Your task to perform on an android device: open device folders in google photos Image 0: 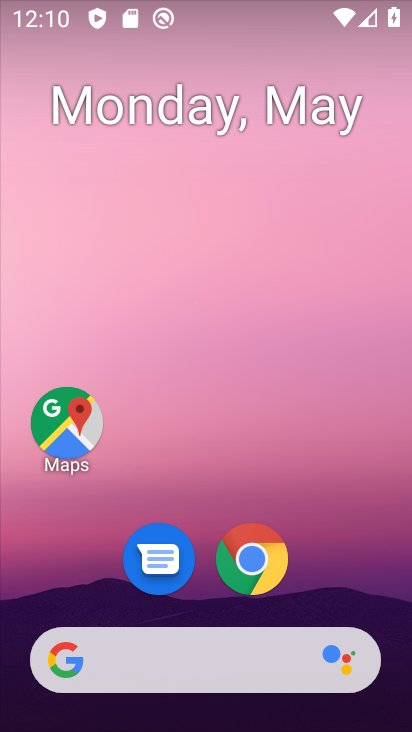
Step 0: drag from (349, 568) to (246, 0)
Your task to perform on an android device: open device folders in google photos Image 1: 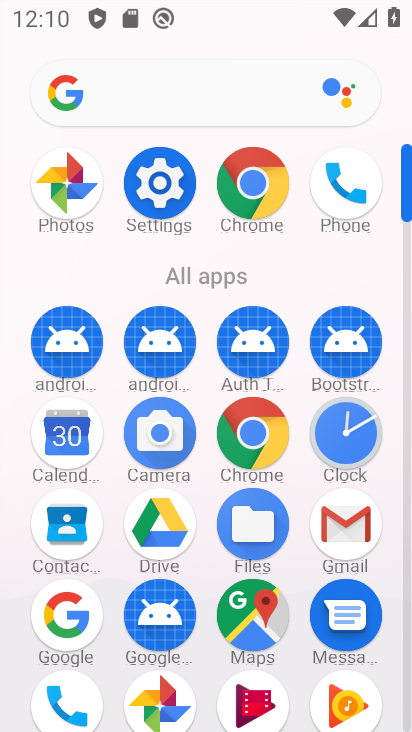
Step 1: drag from (1, 575) to (9, 222)
Your task to perform on an android device: open device folders in google photos Image 2: 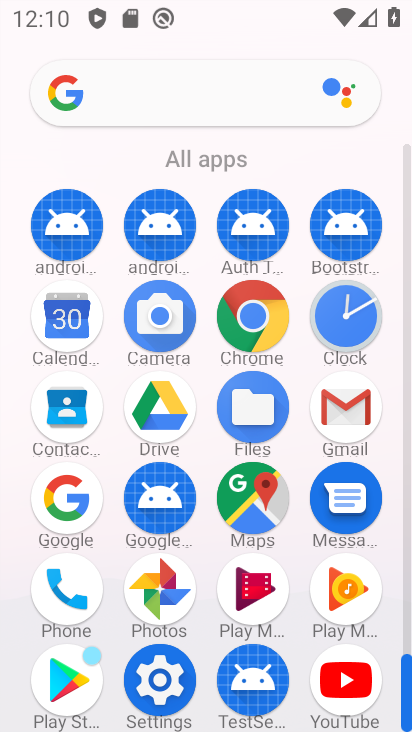
Step 2: drag from (15, 524) to (24, 206)
Your task to perform on an android device: open device folders in google photos Image 3: 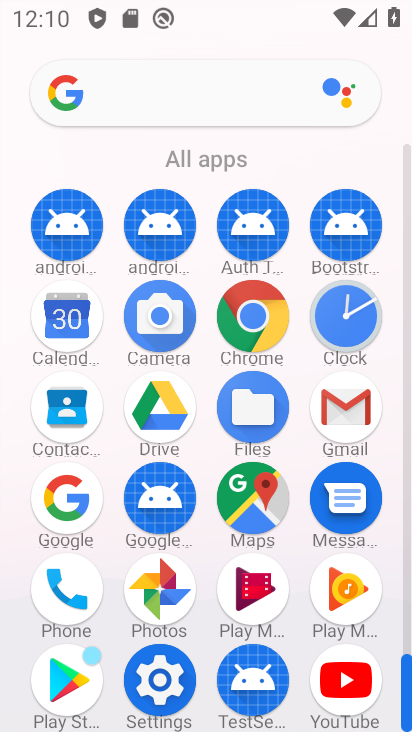
Step 3: click (158, 589)
Your task to perform on an android device: open device folders in google photos Image 4: 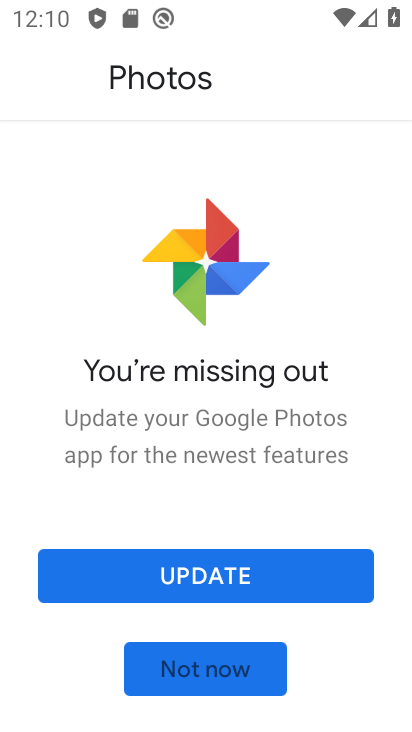
Step 4: click (255, 570)
Your task to perform on an android device: open device folders in google photos Image 5: 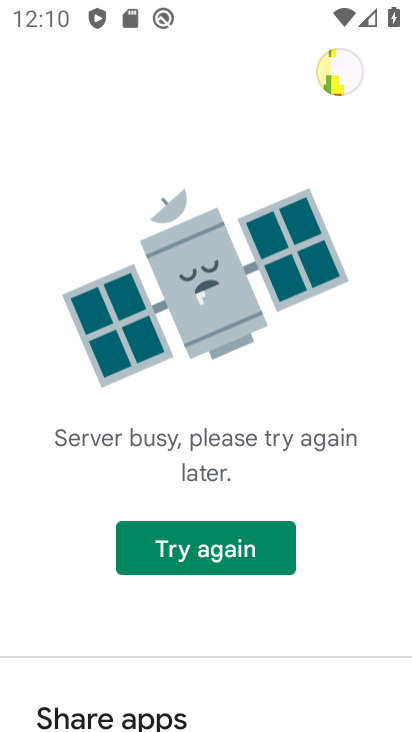
Step 5: task complete